Your task to perform on an android device: Go to Amazon Image 0: 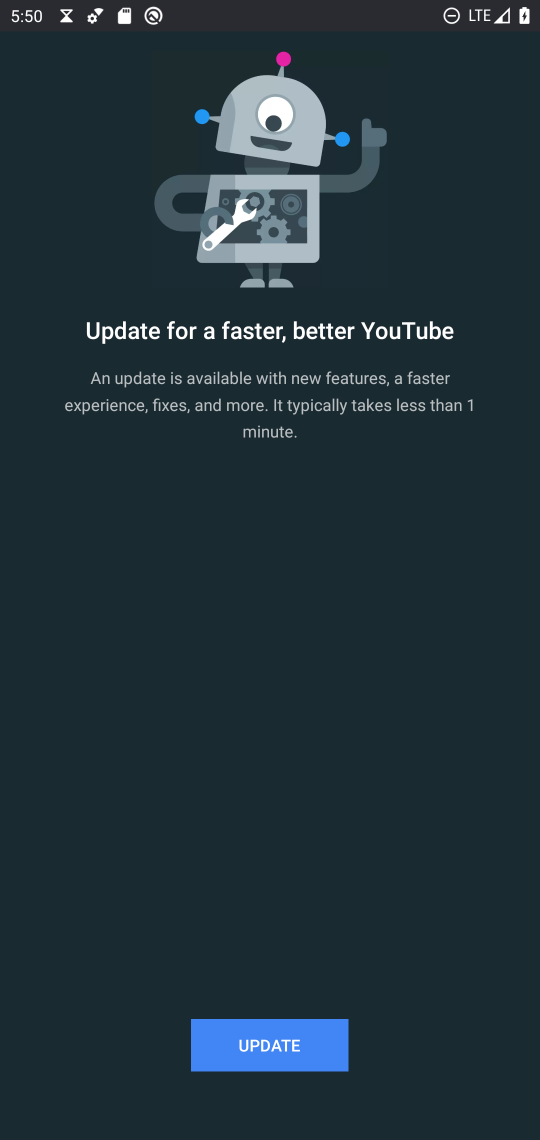
Step 0: press home button
Your task to perform on an android device: Go to Amazon Image 1: 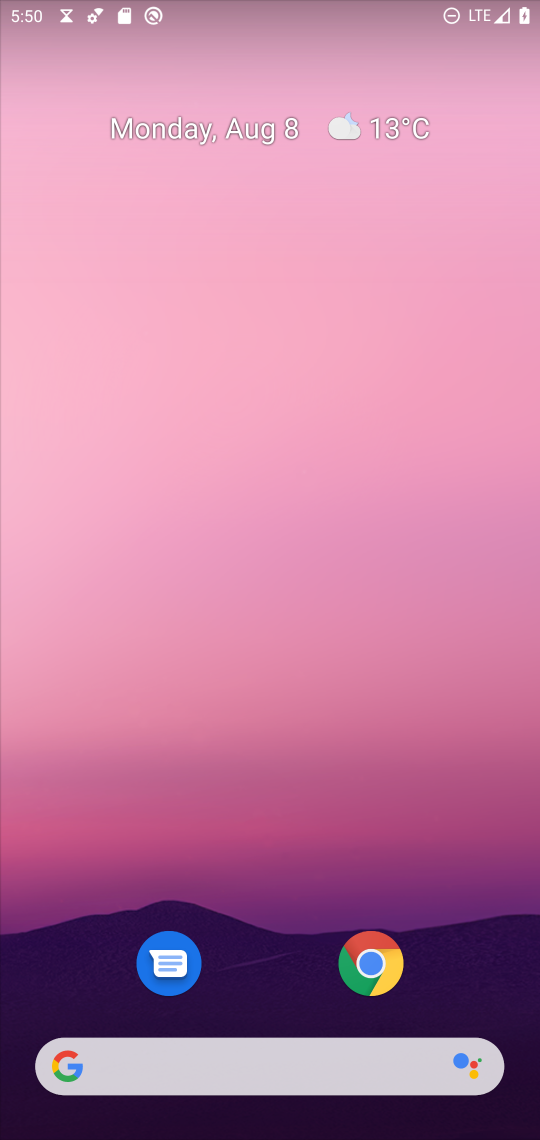
Step 1: click (361, 970)
Your task to perform on an android device: Go to Amazon Image 2: 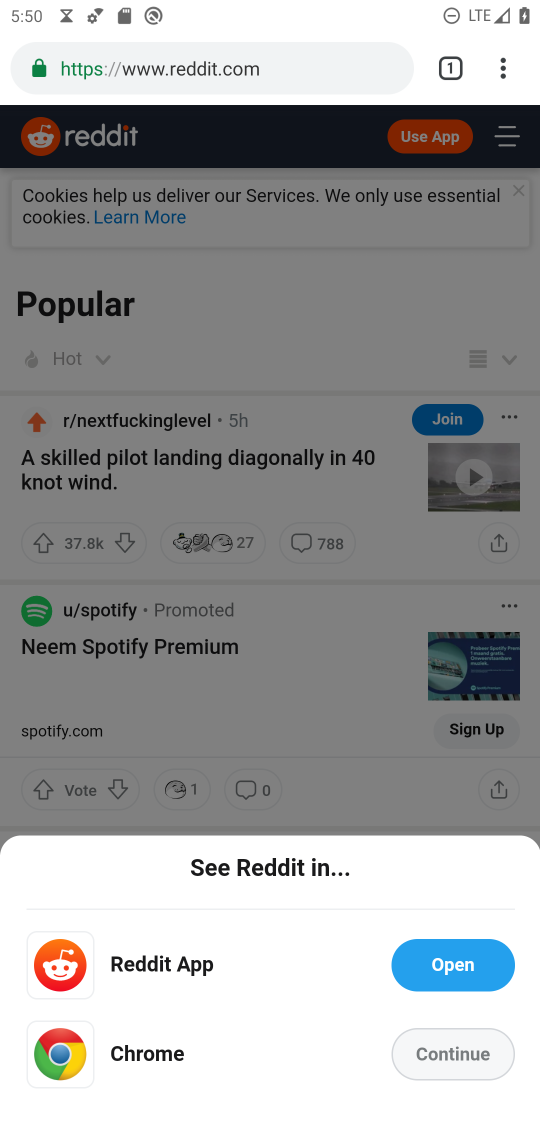
Step 2: click (139, 70)
Your task to perform on an android device: Go to Amazon Image 3: 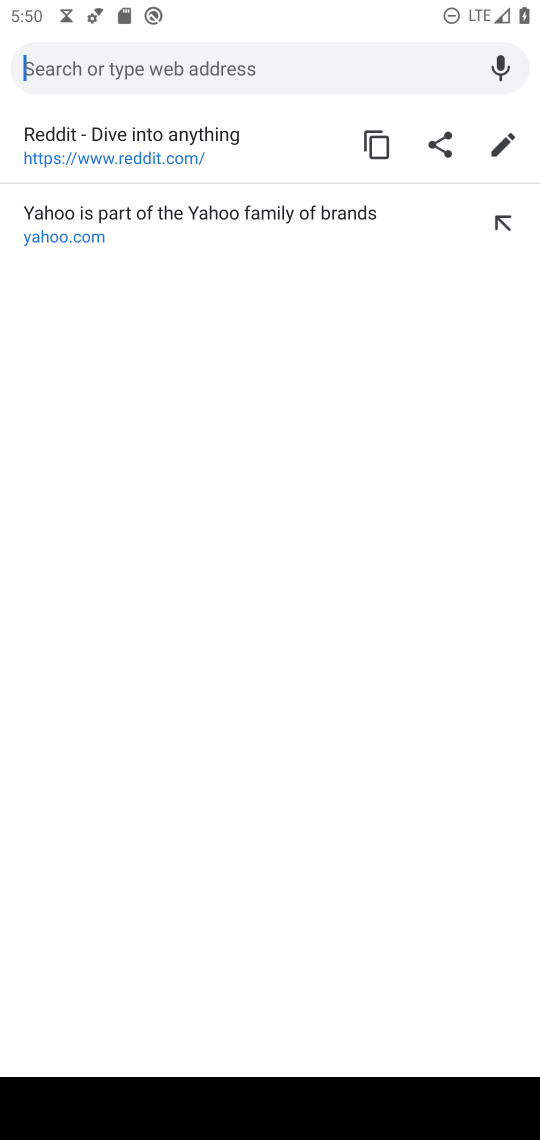
Step 3: type "amazon"
Your task to perform on an android device: Go to Amazon Image 4: 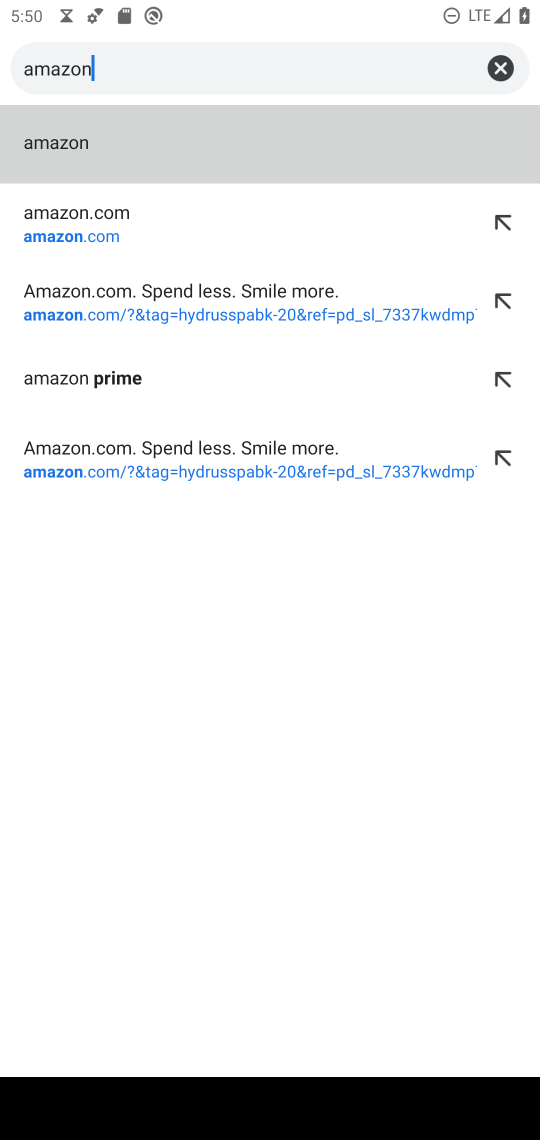
Step 4: click (195, 158)
Your task to perform on an android device: Go to Amazon Image 5: 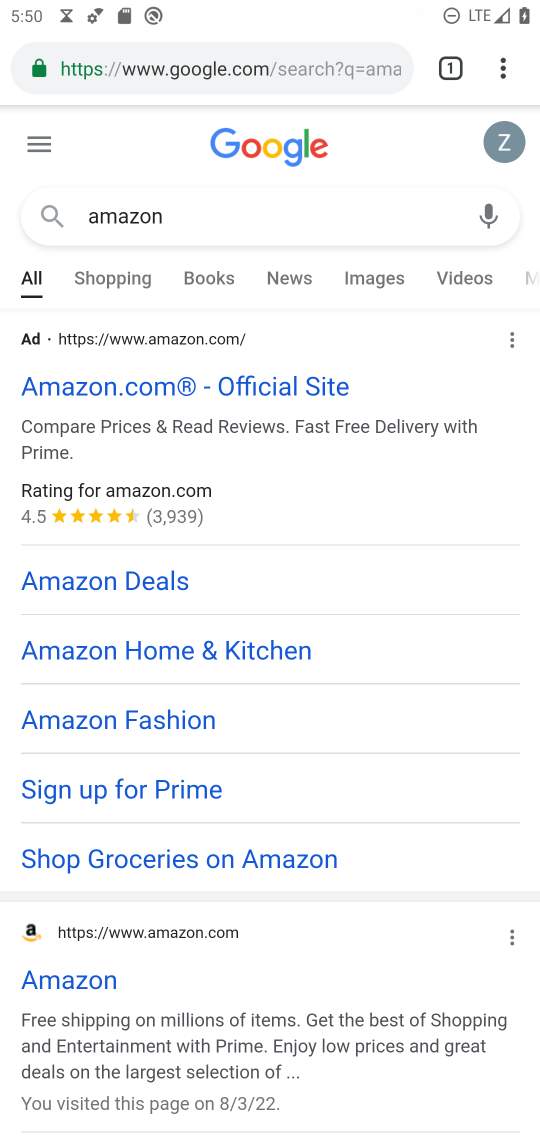
Step 5: click (157, 387)
Your task to perform on an android device: Go to Amazon Image 6: 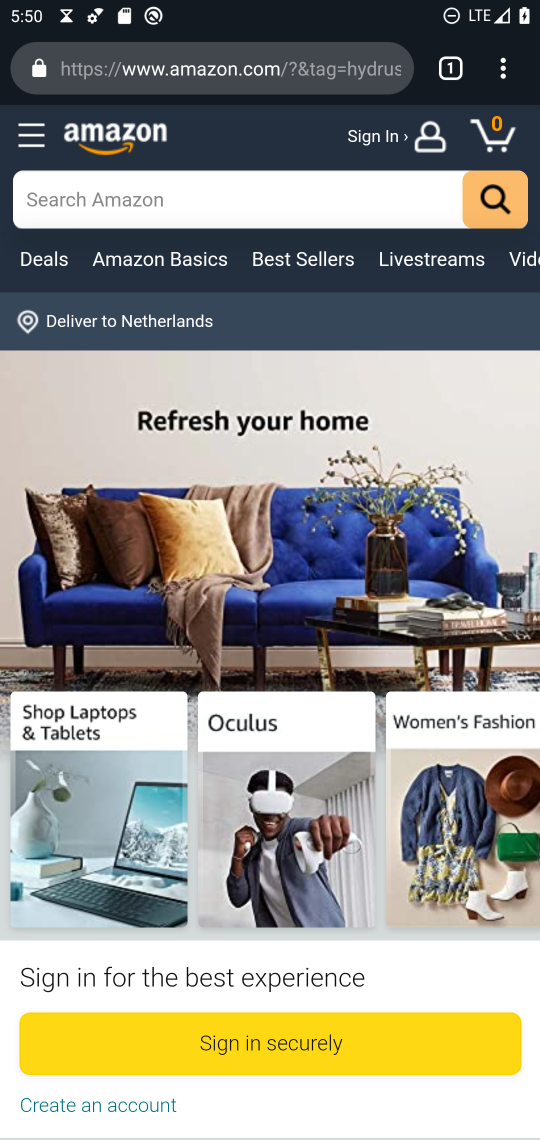
Step 6: task complete